Your task to perform on an android device: turn on translation in the chrome app Image 0: 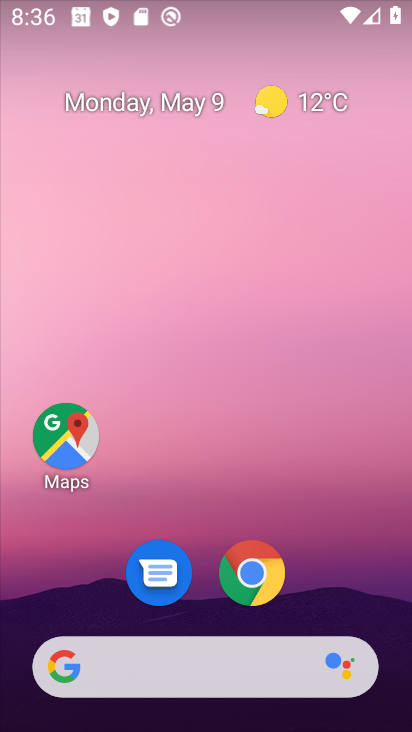
Step 0: drag from (234, 615) to (268, 206)
Your task to perform on an android device: turn on translation in the chrome app Image 1: 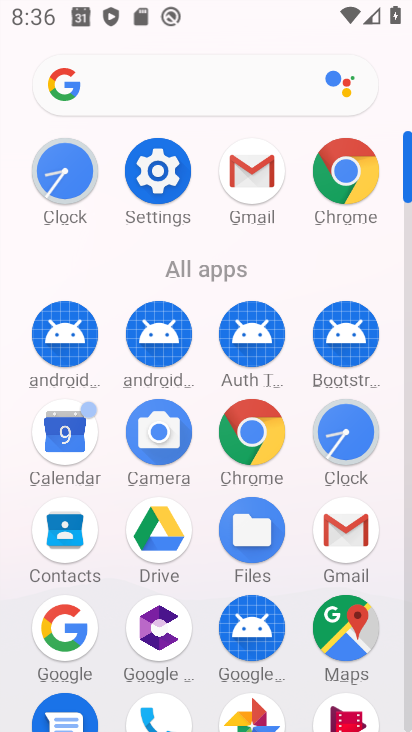
Step 1: click (337, 189)
Your task to perform on an android device: turn on translation in the chrome app Image 2: 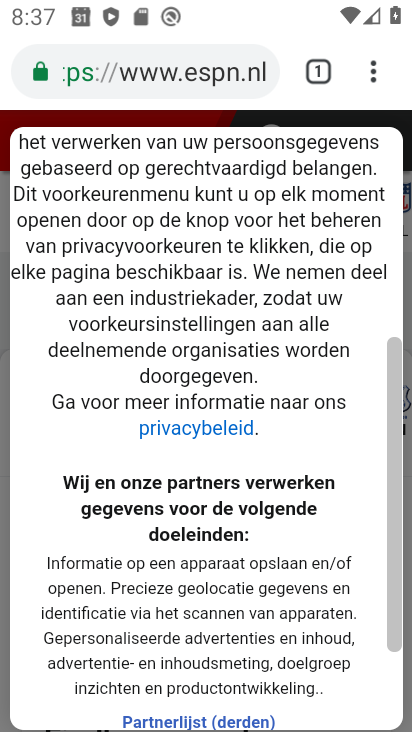
Step 2: click (378, 66)
Your task to perform on an android device: turn on translation in the chrome app Image 3: 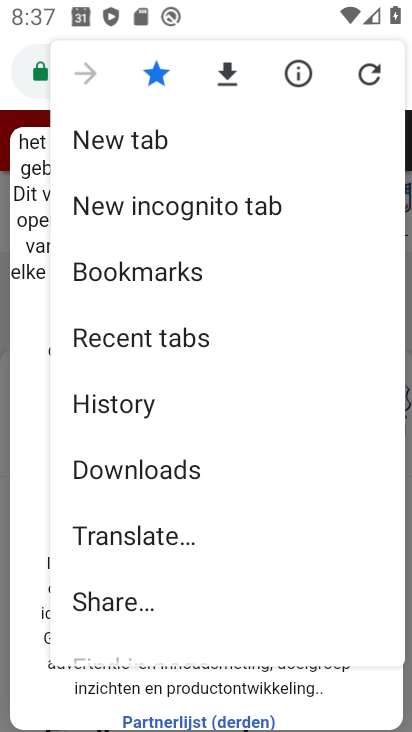
Step 3: click (140, 534)
Your task to perform on an android device: turn on translation in the chrome app Image 4: 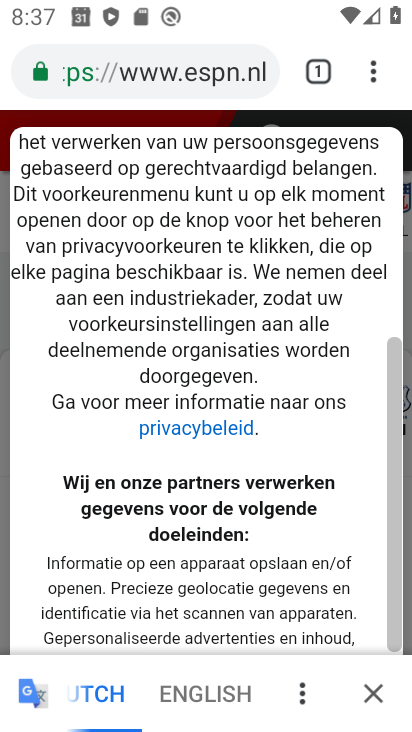
Step 4: click (304, 692)
Your task to perform on an android device: turn on translation in the chrome app Image 5: 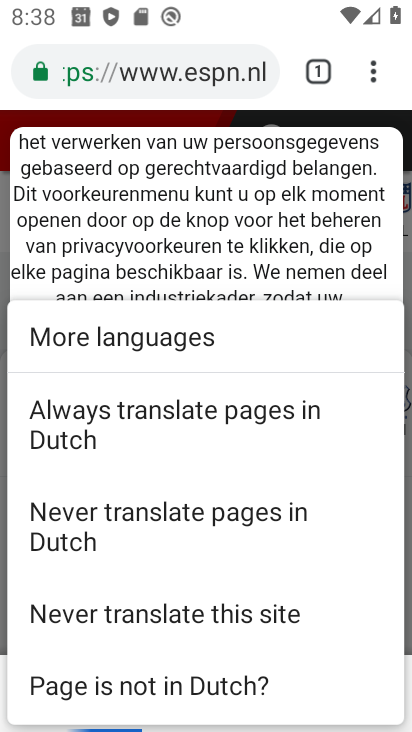
Step 5: click (278, 431)
Your task to perform on an android device: turn on translation in the chrome app Image 6: 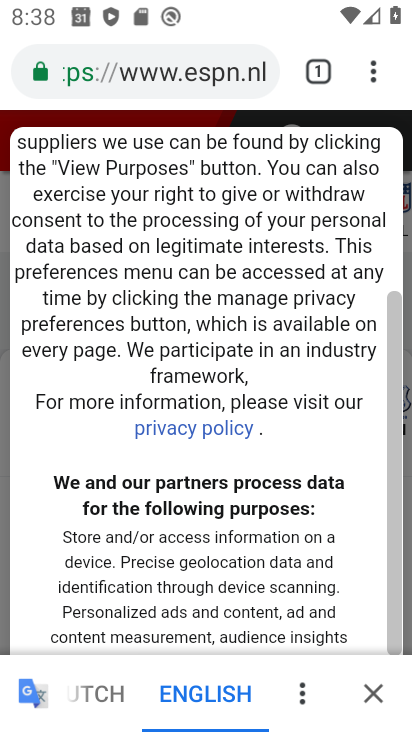
Step 6: task complete